Your task to perform on an android device: Go to internet settings Image 0: 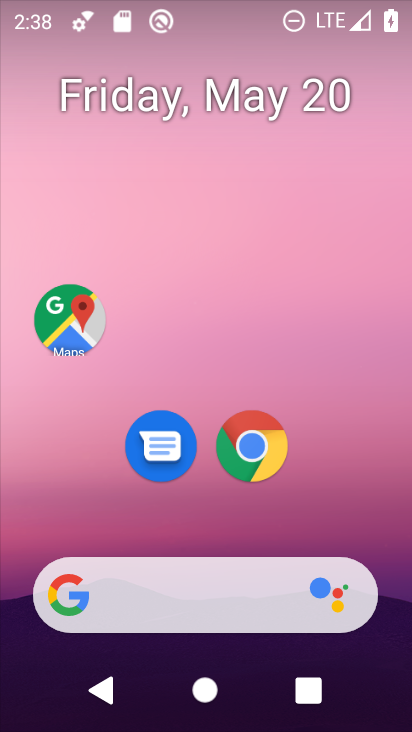
Step 0: drag from (389, 560) to (377, 459)
Your task to perform on an android device: Go to internet settings Image 1: 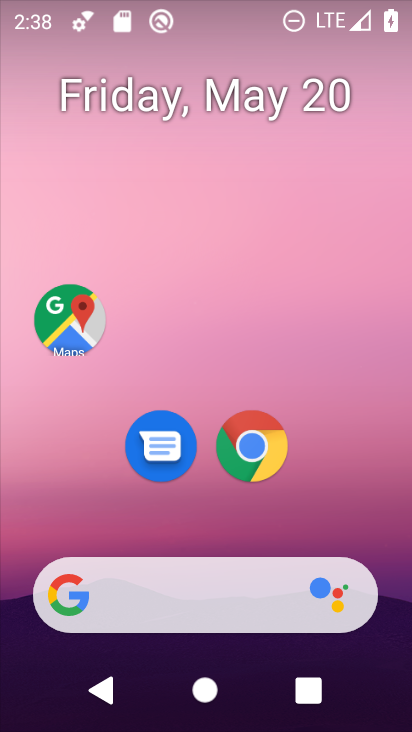
Step 1: drag from (391, 556) to (341, 8)
Your task to perform on an android device: Go to internet settings Image 2: 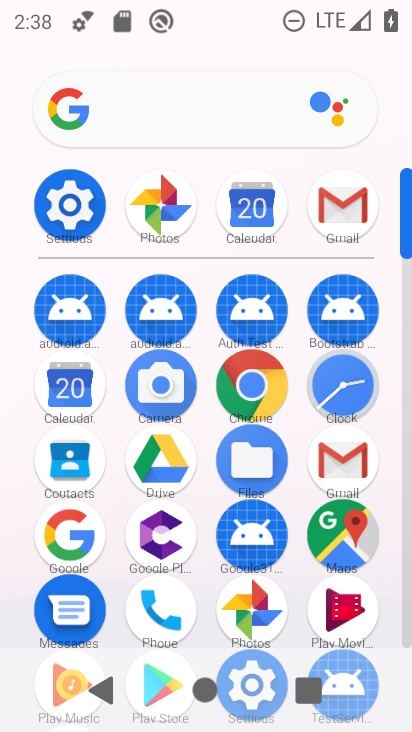
Step 2: click (79, 202)
Your task to perform on an android device: Go to internet settings Image 3: 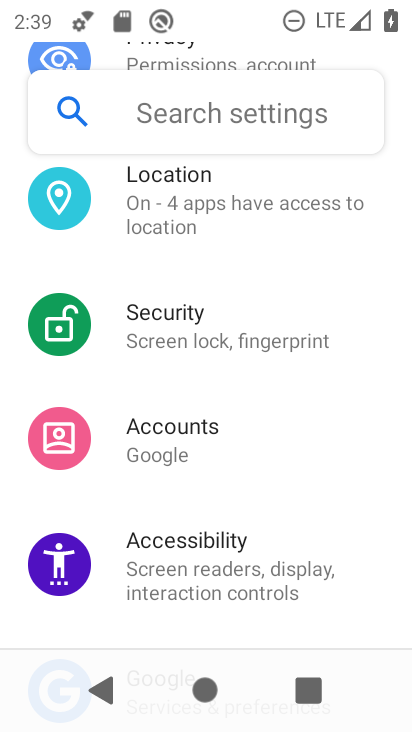
Step 3: drag from (371, 250) to (358, 593)
Your task to perform on an android device: Go to internet settings Image 4: 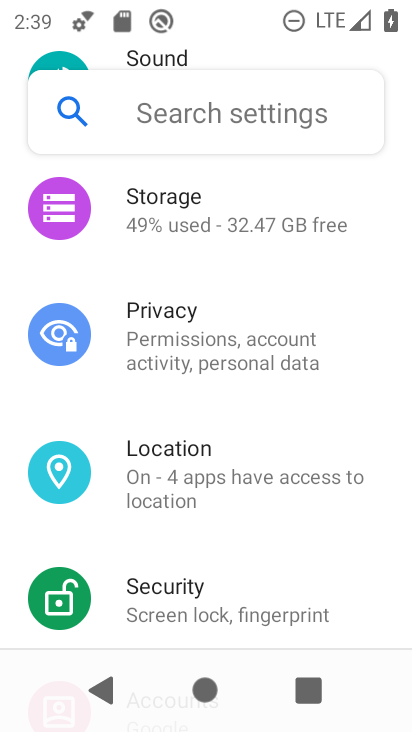
Step 4: drag from (341, 257) to (332, 629)
Your task to perform on an android device: Go to internet settings Image 5: 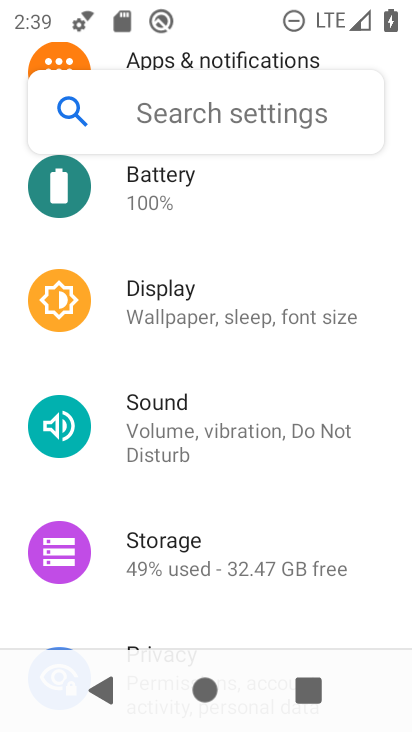
Step 5: drag from (301, 255) to (329, 602)
Your task to perform on an android device: Go to internet settings Image 6: 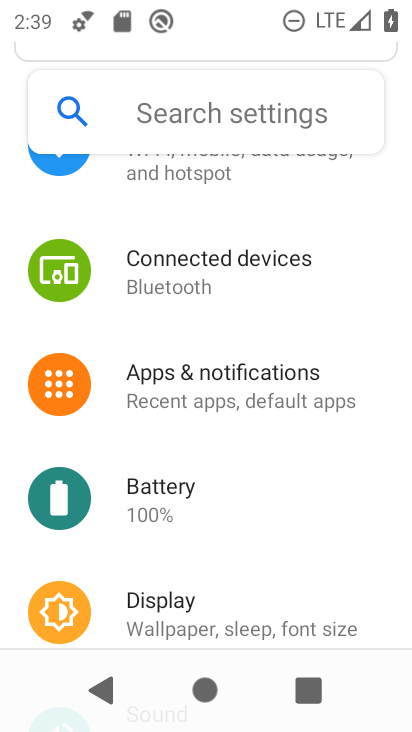
Step 6: drag from (293, 257) to (305, 600)
Your task to perform on an android device: Go to internet settings Image 7: 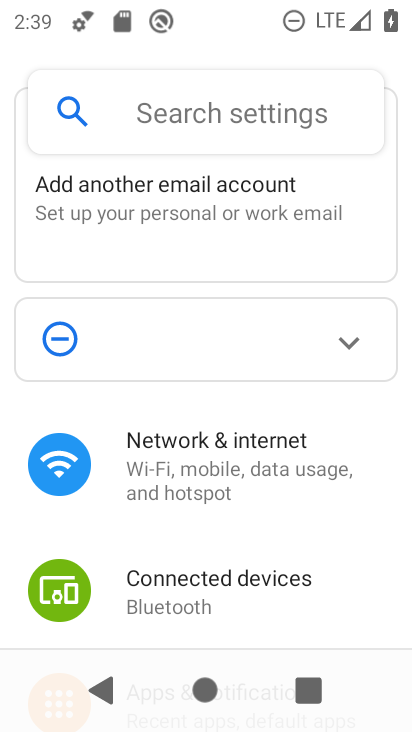
Step 7: click (200, 473)
Your task to perform on an android device: Go to internet settings Image 8: 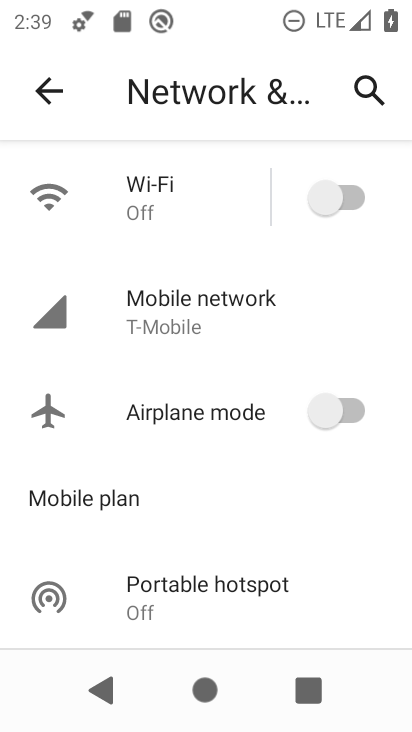
Step 8: task complete